Your task to perform on an android device: Open calendar and show me the first week of next month Image 0: 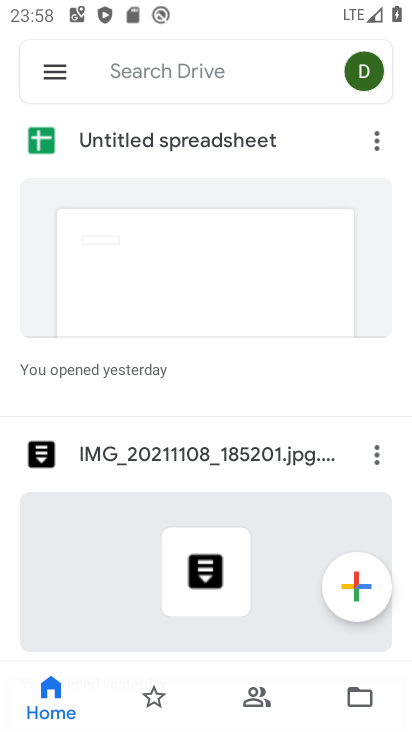
Step 0: press home button
Your task to perform on an android device: Open calendar and show me the first week of next month Image 1: 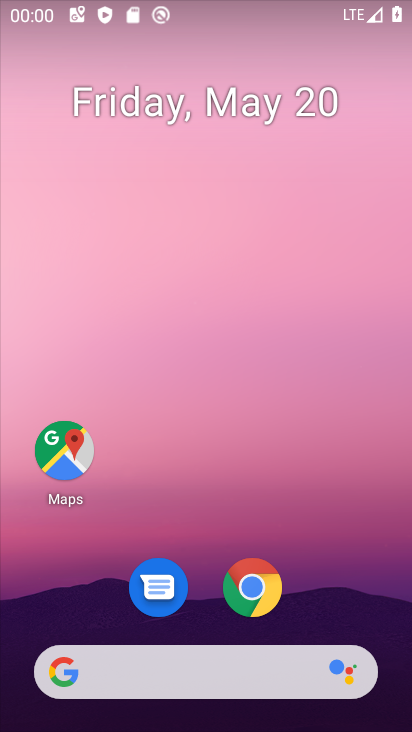
Step 1: drag from (297, 699) to (72, 10)
Your task to perform on an android device: Open calendar and show me the first week of next month Image 2: 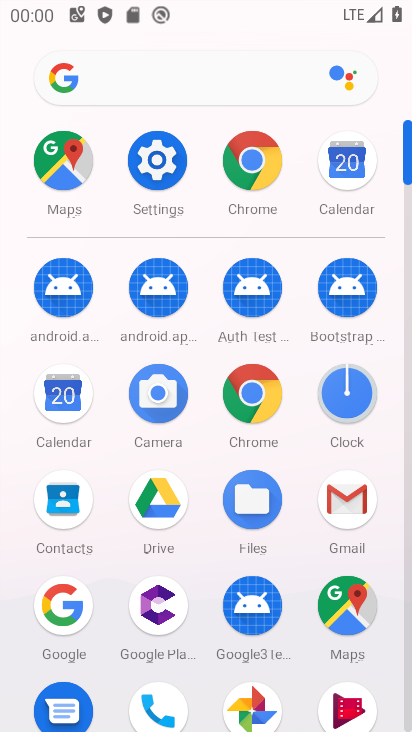
Step 2: click (66, 398)
Your task to perform on an android device: Open calendar and show me the first week of next month Image 3: 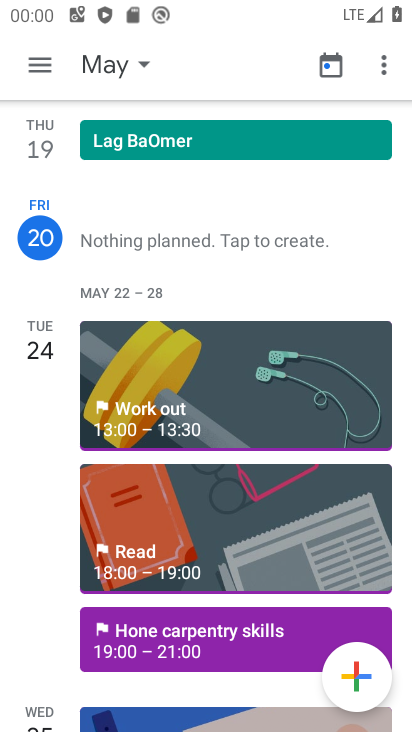
Step 3: click (44, 76)
Your task to perform on an android device: Open calendar and show me the first week of next month Image 4: 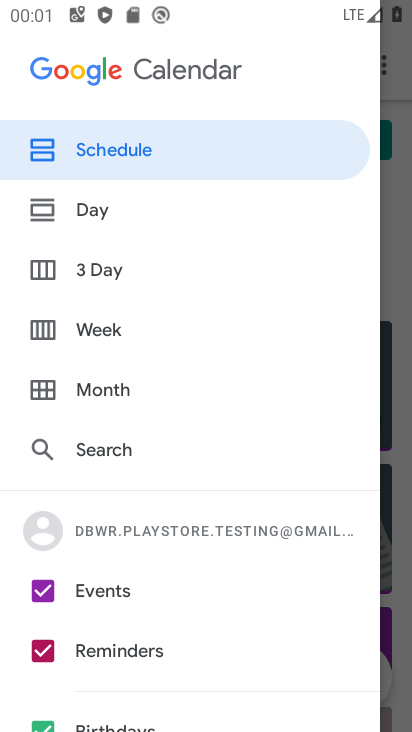
Step 4: click (134, 392)
Your task to perform on an android device: Open calendar and show me the first week of next month Image 5: 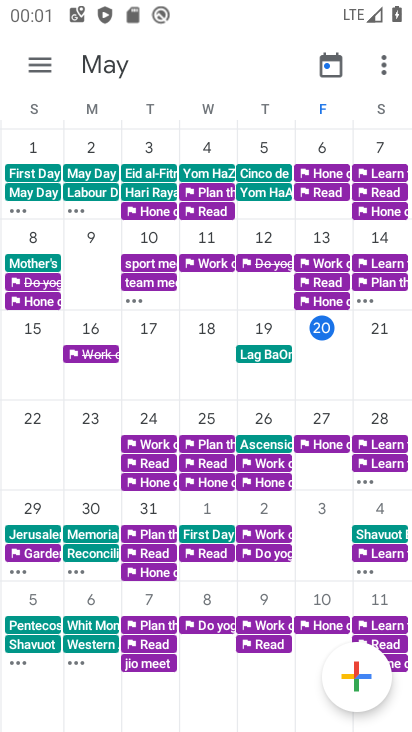
Step 5: drag from (386, 379) to (0, 363)
Your task to perform on an android device: Open calendar and show me the first week of next month Image 6: 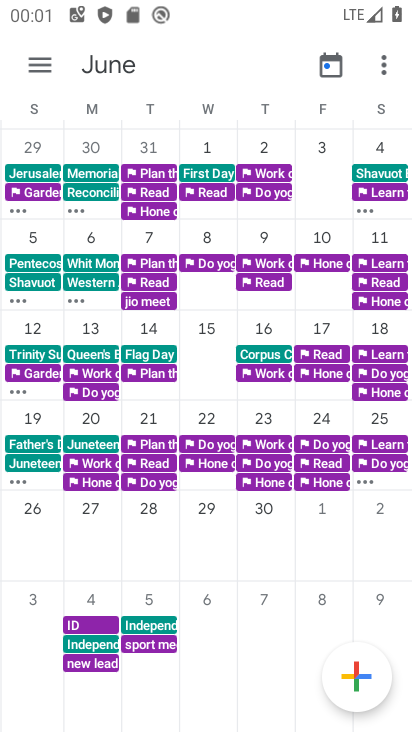
Step 6: click (192, 156)
Your task to perform on an android device: Open calendar and show me the first week of next month Image 7: 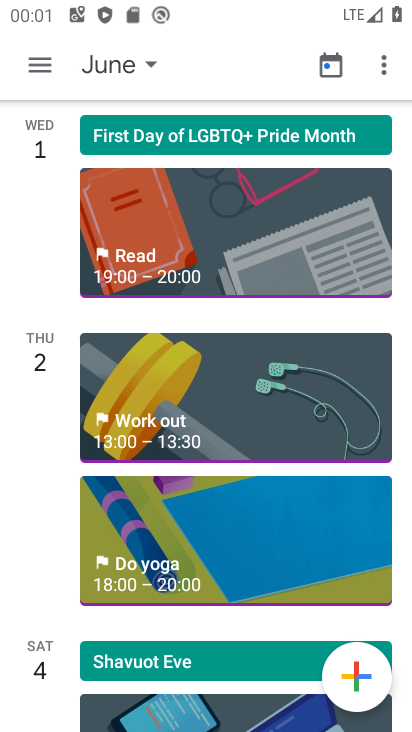
Step 7: task complete